Your task to perform on an android device: Open wifi settings Image 0: 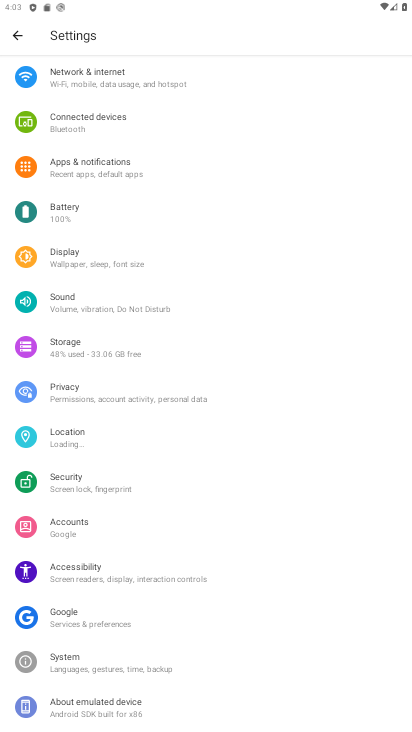
Step 0: click (89, 69)
Your task to perform on an android device: Open wifi settings Image 1: 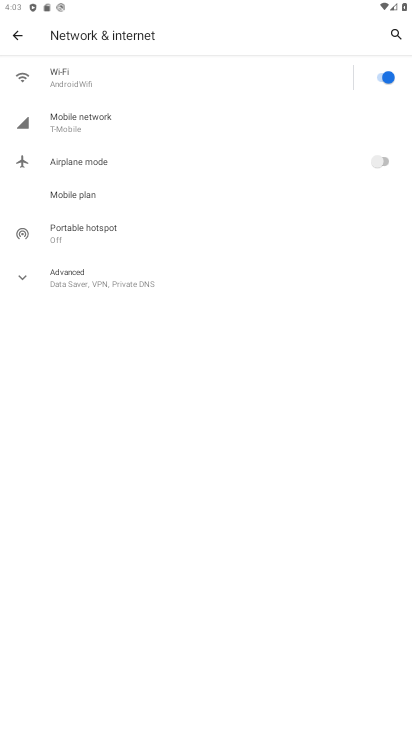
Step 1: click (89, 68)
Your task to perform on an android device: Open wifi settings Image 2: 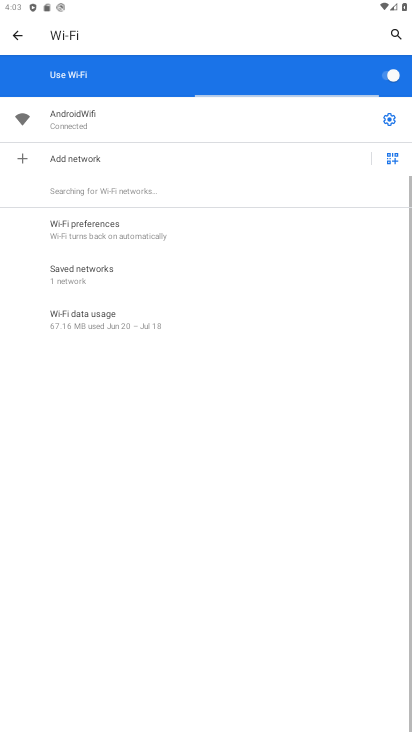
Step 2: task complete